Your task to perform on an android device: turn notification dots off Image 0: 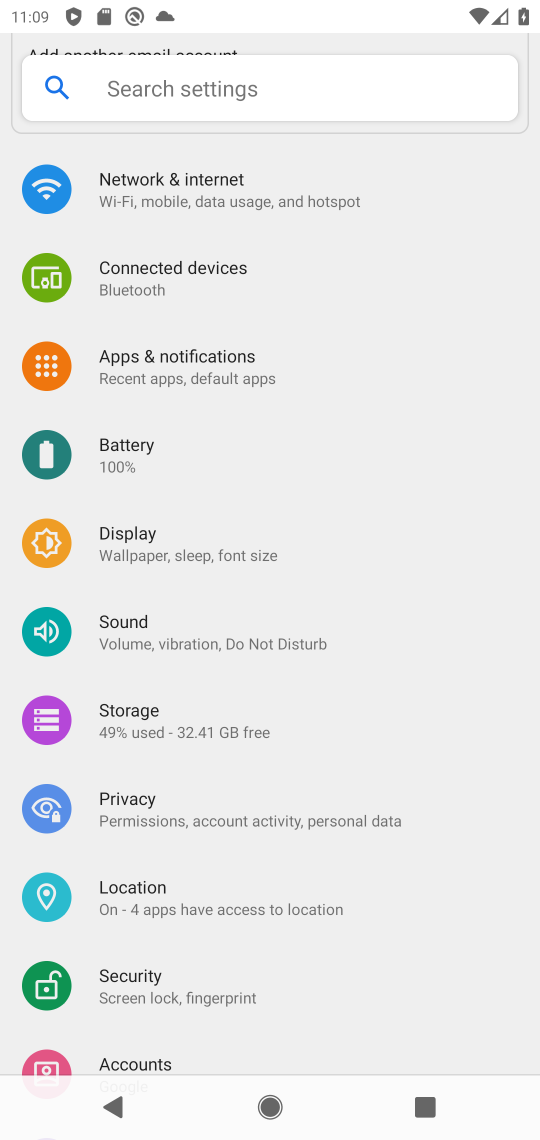
Step 0: press home button
Your task to perform on an android device: turn notification dots off Image 1: 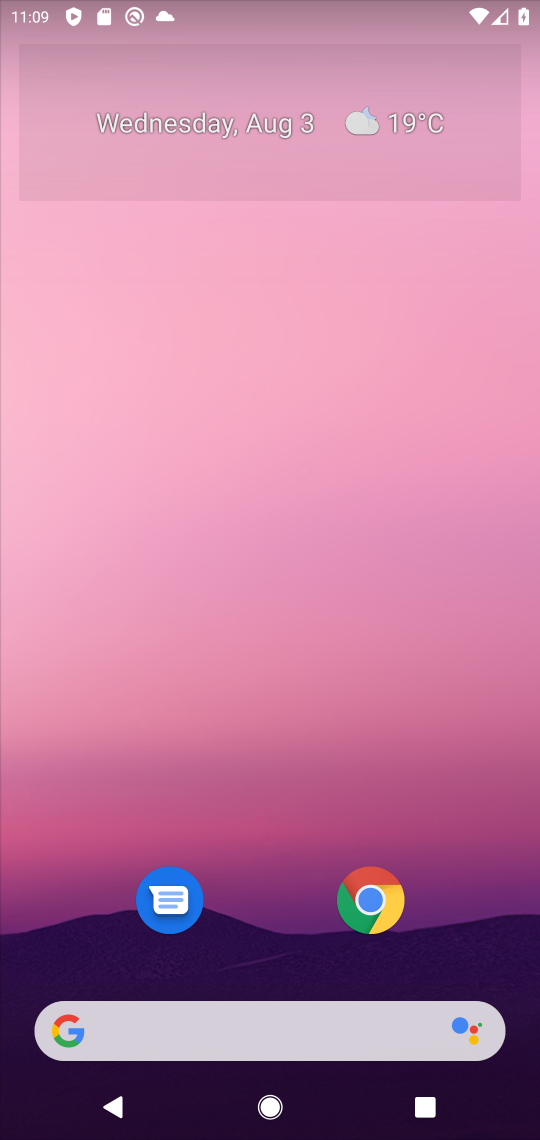
Step 1: drag from (267, 884) to (175, 162)
Your task to perform on an android device: turn notification dots off Image 2: 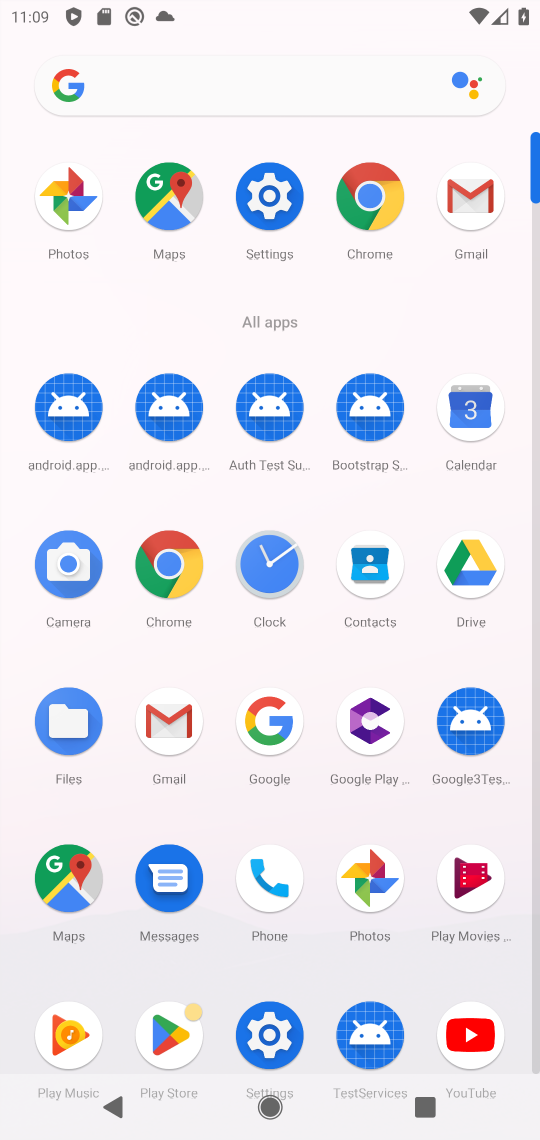
Step 2: click (263, 1038)
Your task to perform on an android device: turn notification dots off Image 3: 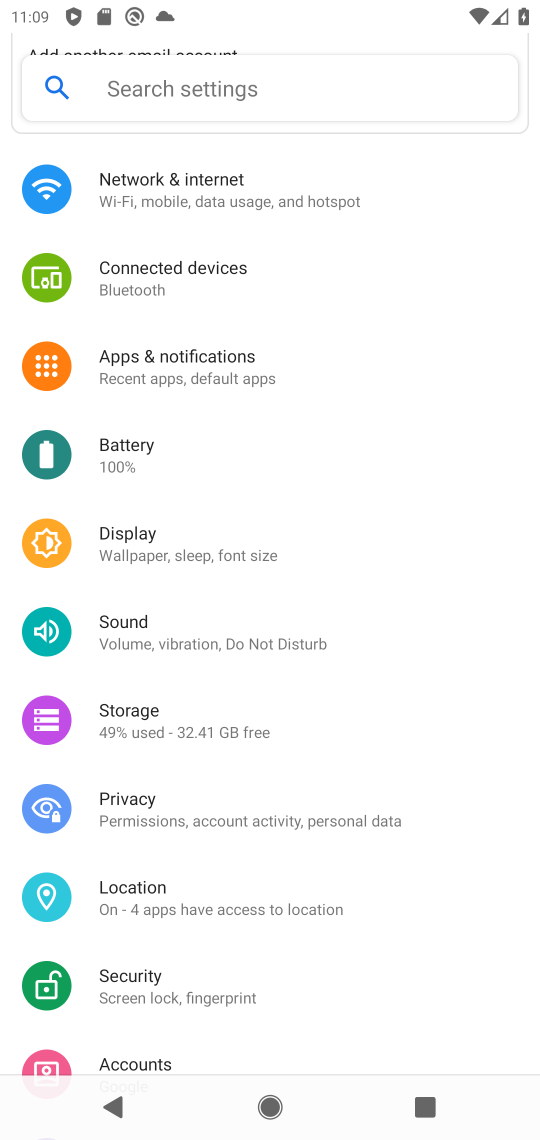
Step 3: click (192, 364)
Your task to perform on an android device: turn notification dots off Image 4: 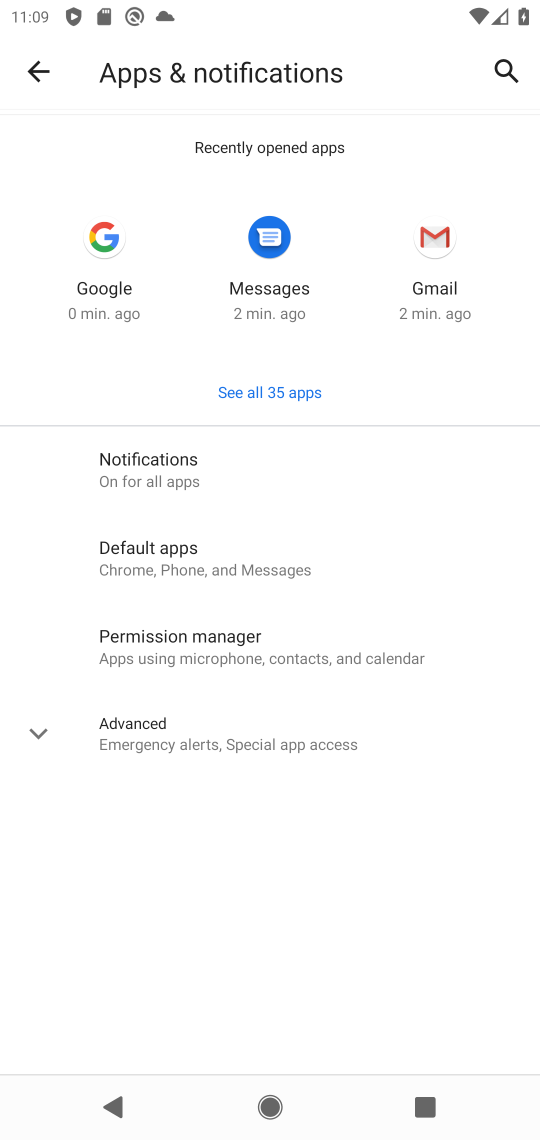
Step 4: click (197, 469)
Your task to perform on an android device: turn notification dots off Image 5: 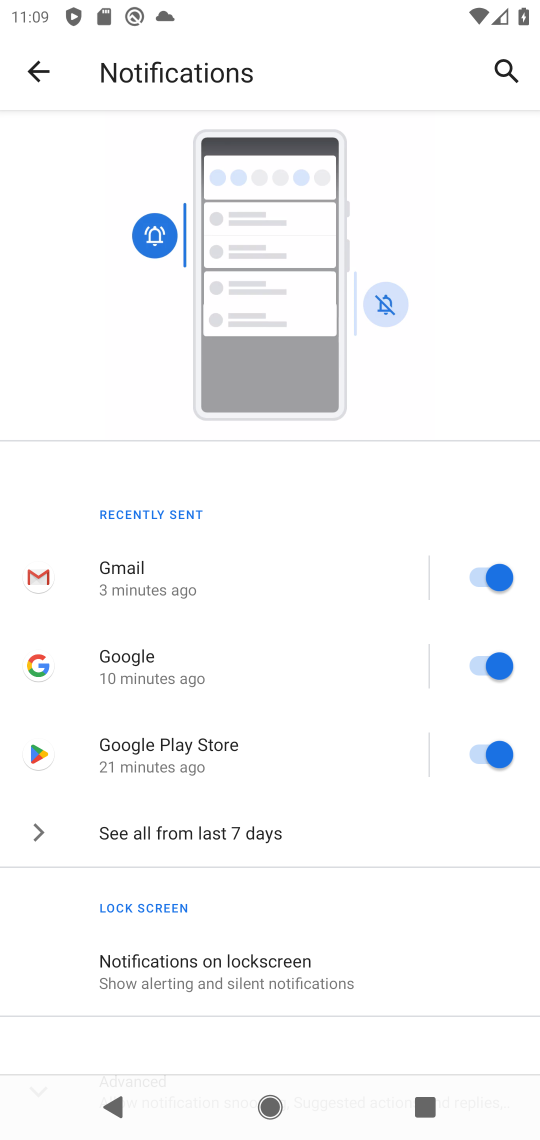
Step 5: drag from (302, 874) to (205, 328)
Your task to perform on an android device: turn notification dots off Image 6: 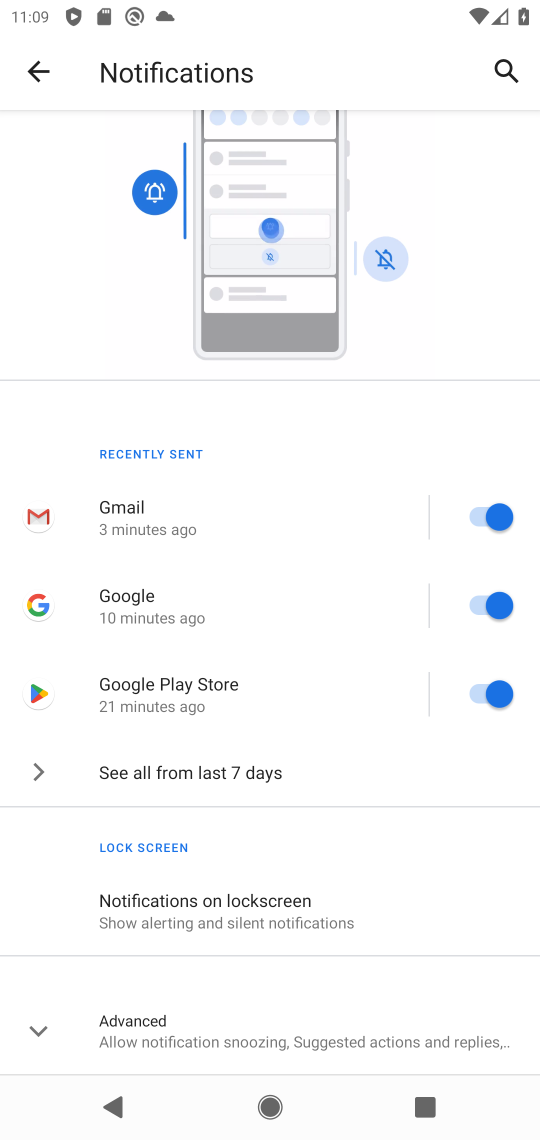
Step 6: click (21, 1026)
Your task to perform on an android device: turn notification dots off Image 7: 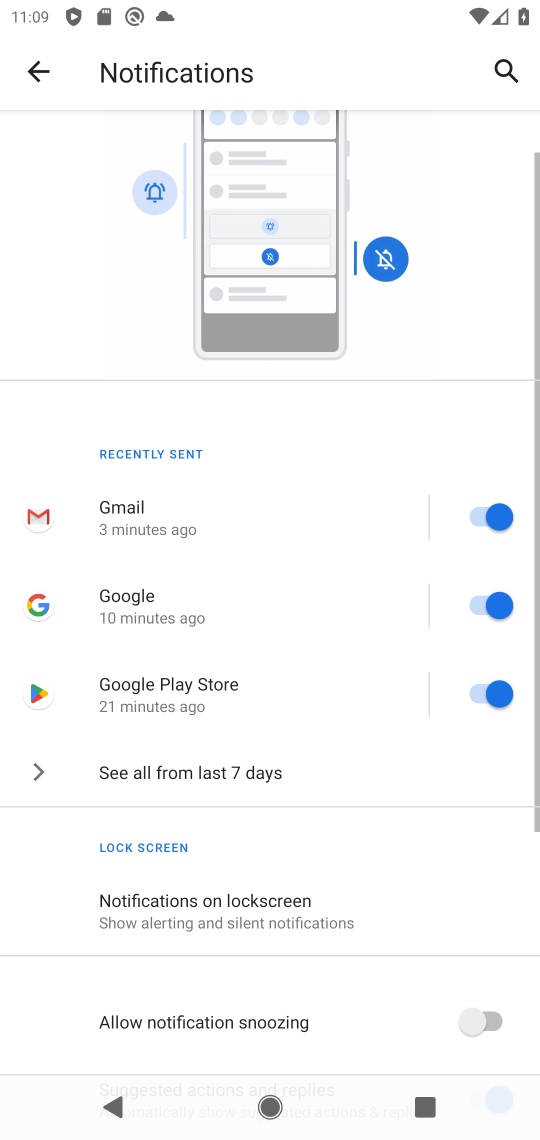
Step 7: drag from (256, 981) to (385, 483)
Your task to perform on an android device: turn notification dots off Image 8: 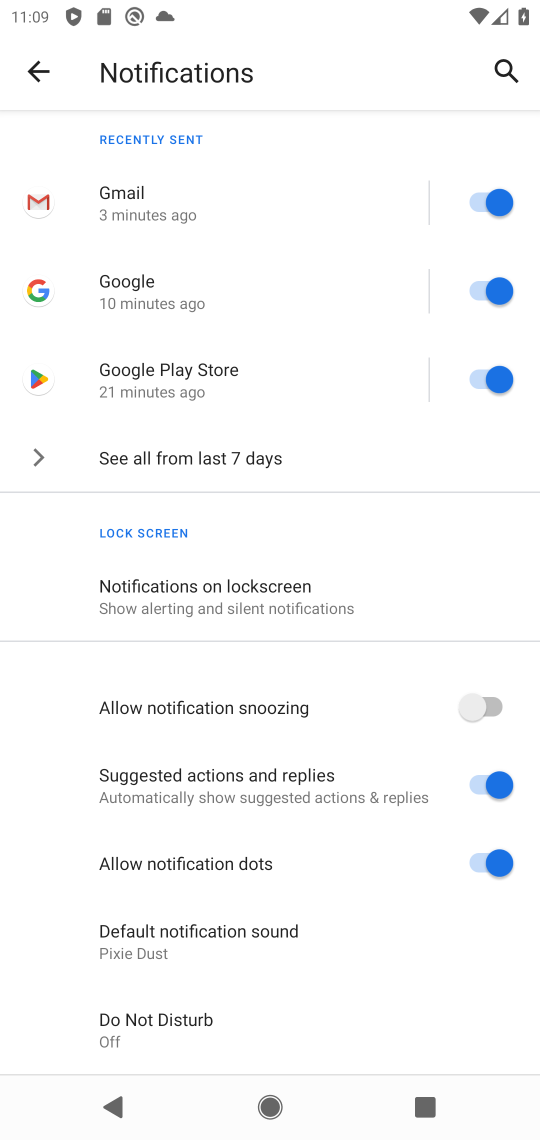
Step 8: click (465, 865)
Your task to perform on an android device: turn notification dots off Image 9: 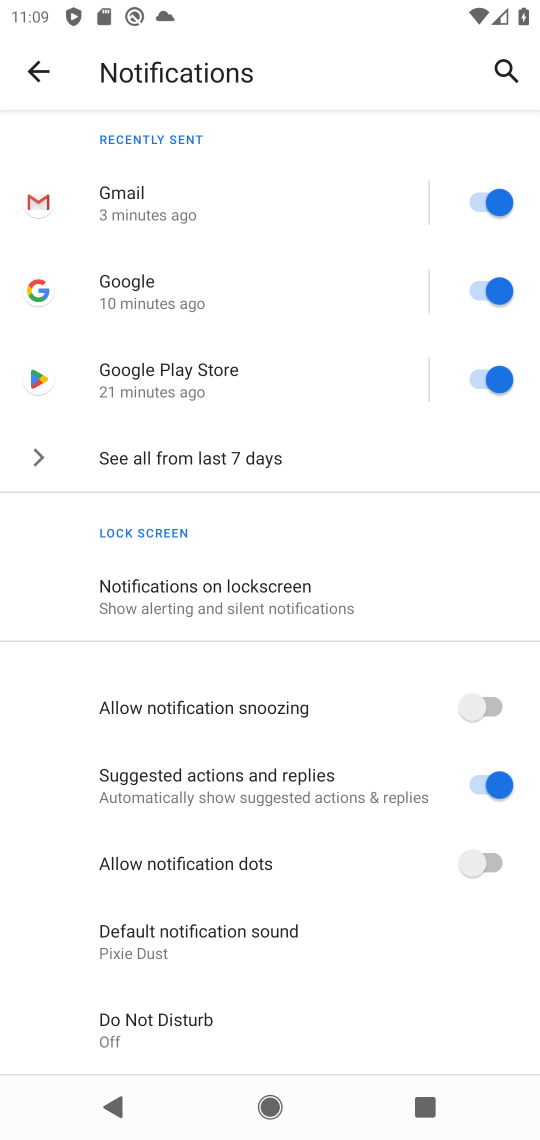
Step 9: task complete